Your task to perform on an android device: turn off sleep mode Image 0: 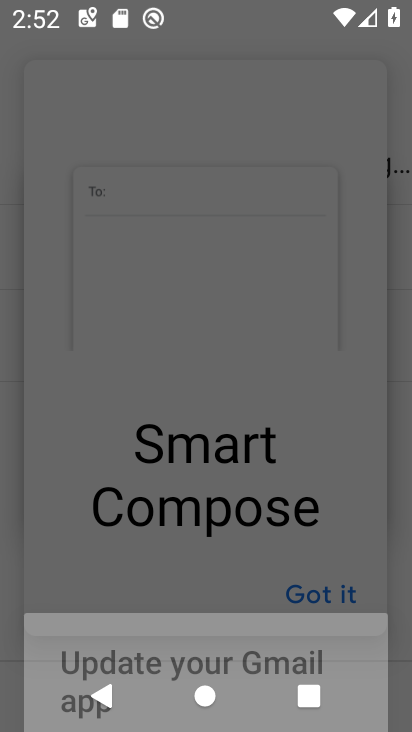
Step 0: click (328, 594)
Your task to perform on an android device: turn off sleep mode Image 1: 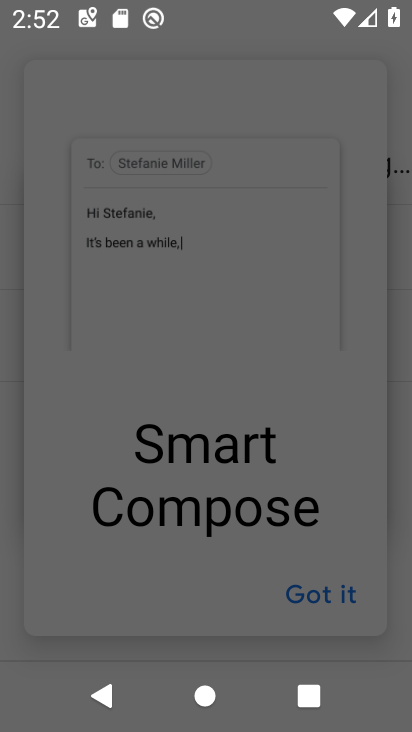
Step 1: task complete